Your task to perform on an android device: Play some music on YouTube Image 0: 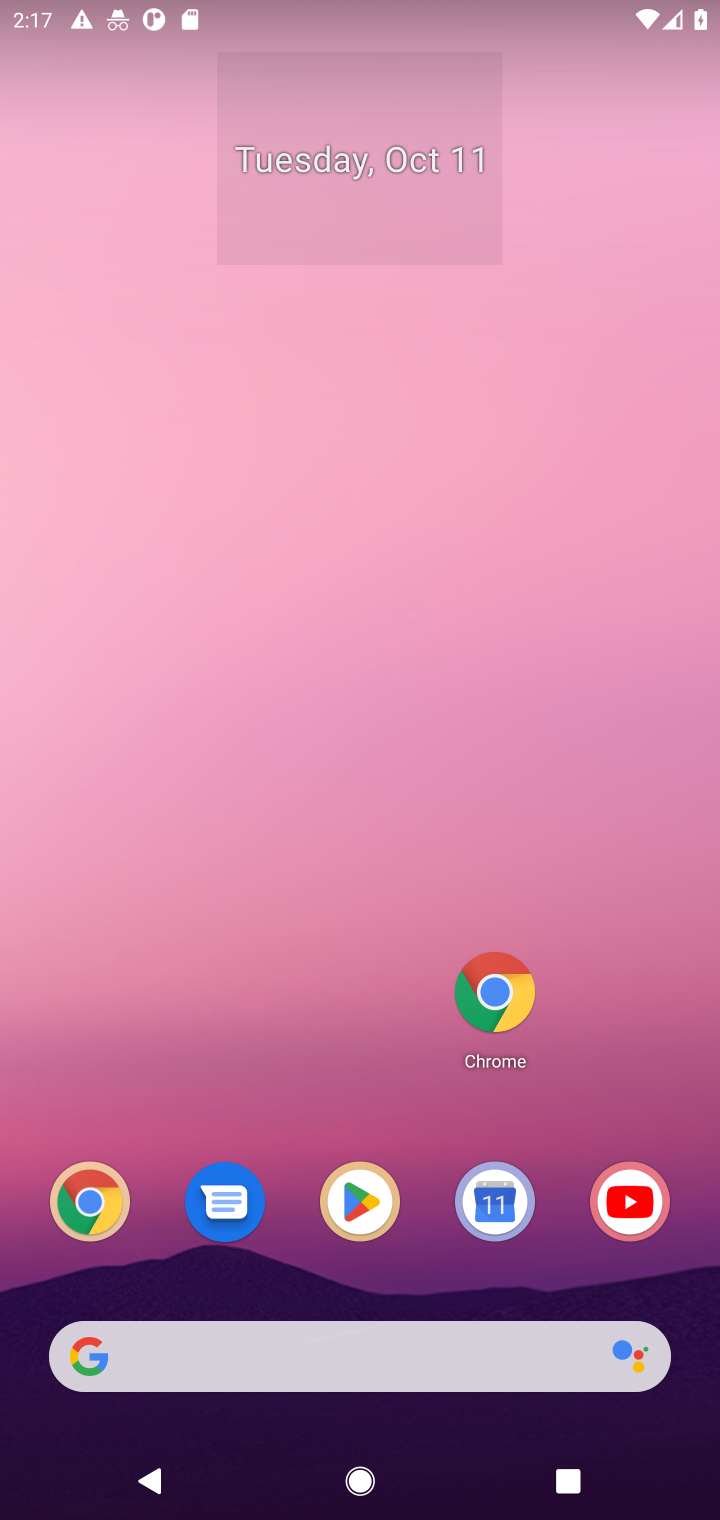
Step 0: click (644, 1198)
Your task to perform on an android device: Play some music on YouTube Image 1: 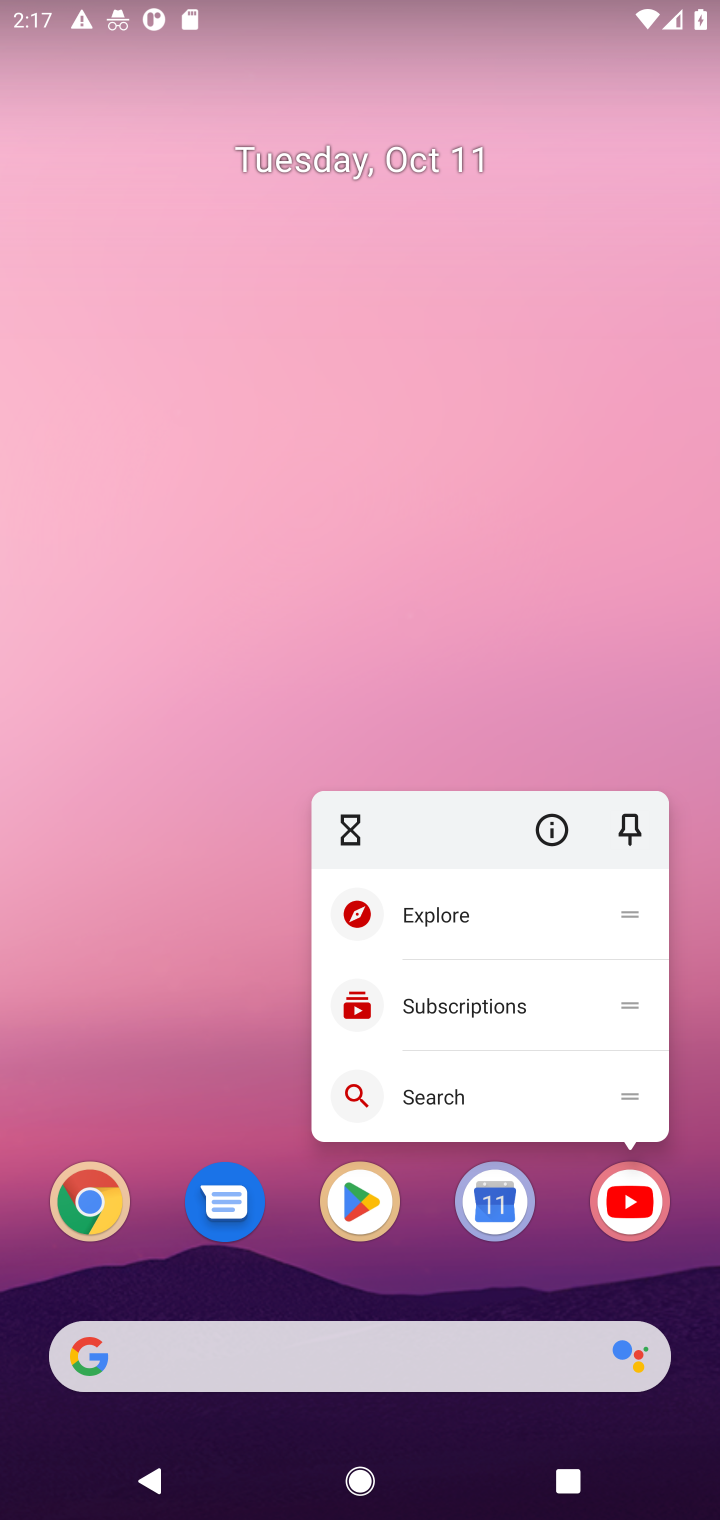
Step 1: click (644, 1202)
Your task to perform on an android device: Play some music on YouTube Image 2: 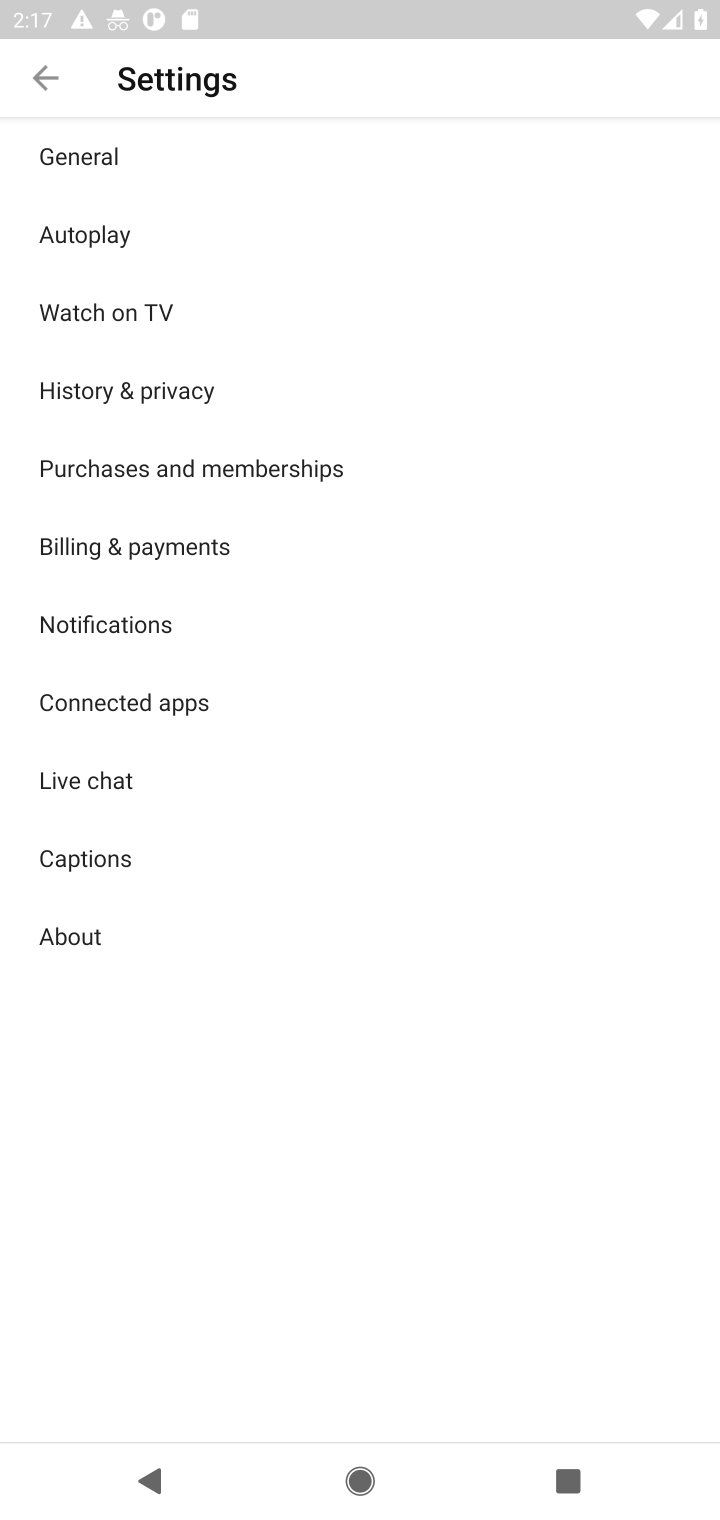
Step 2: press back button
Your task to perform on an android device: Play some music on YouTube Image 3: 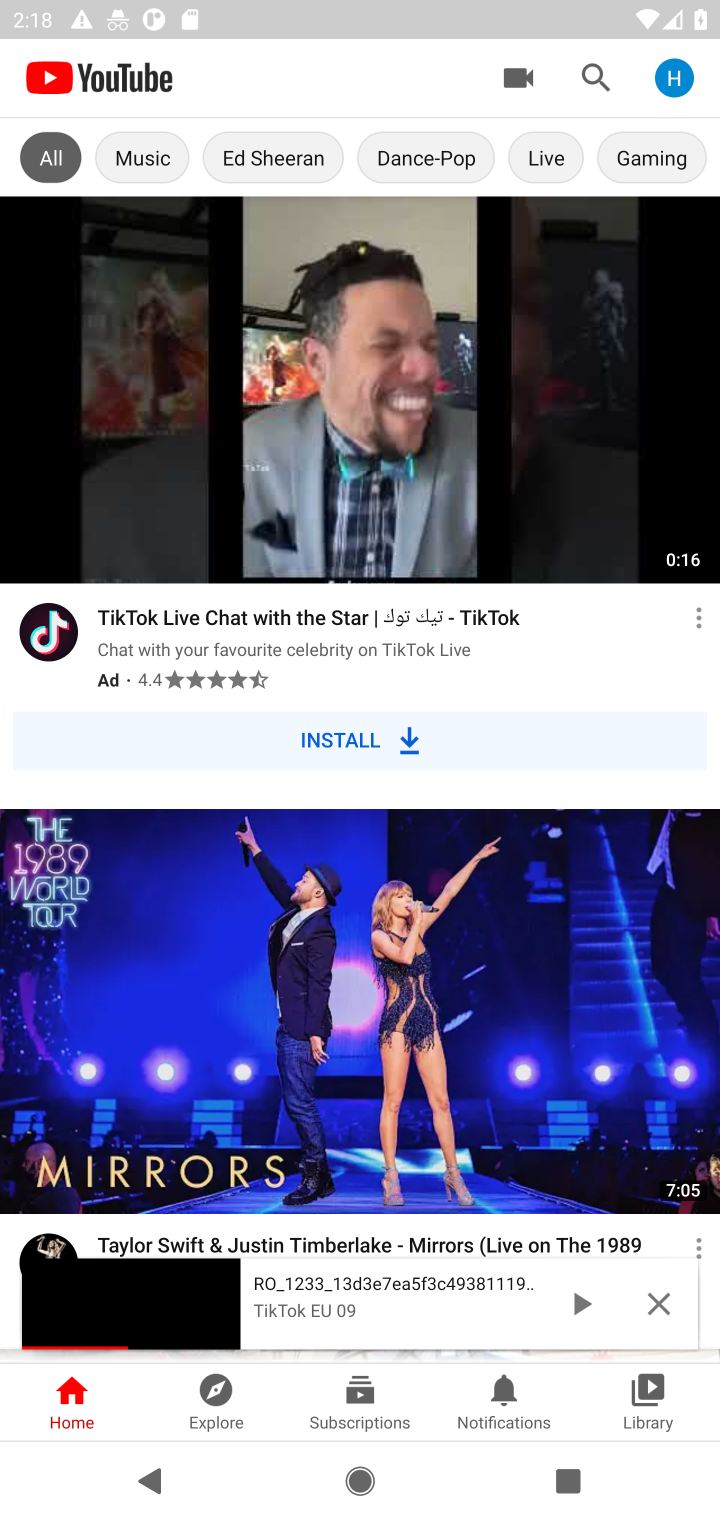
Step 3: click (573, 60)
Your task to perform on an android device: Play some music on YouTube Image 4: 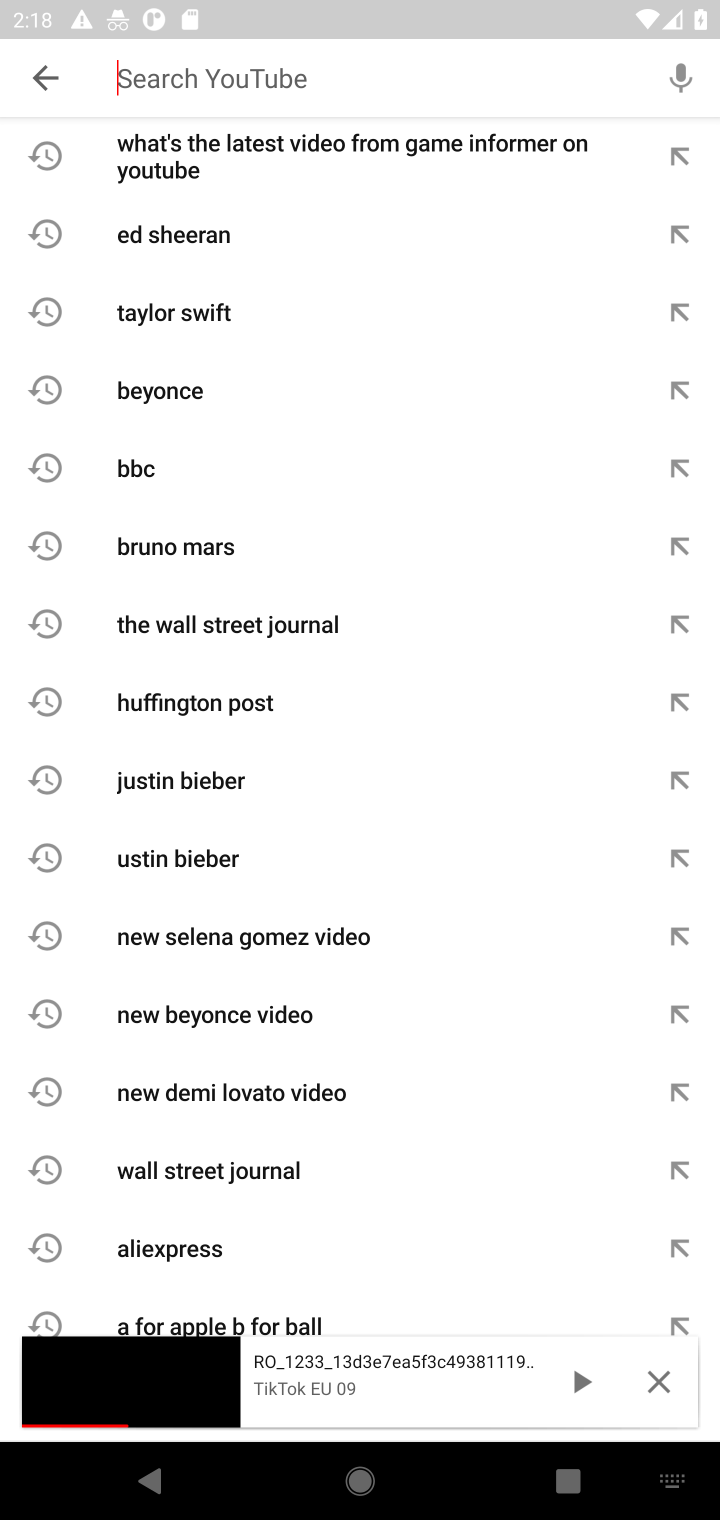
Step 4: click (658, 1370)
Your task to perform on an android device: Play some music on YouTube Image 5: 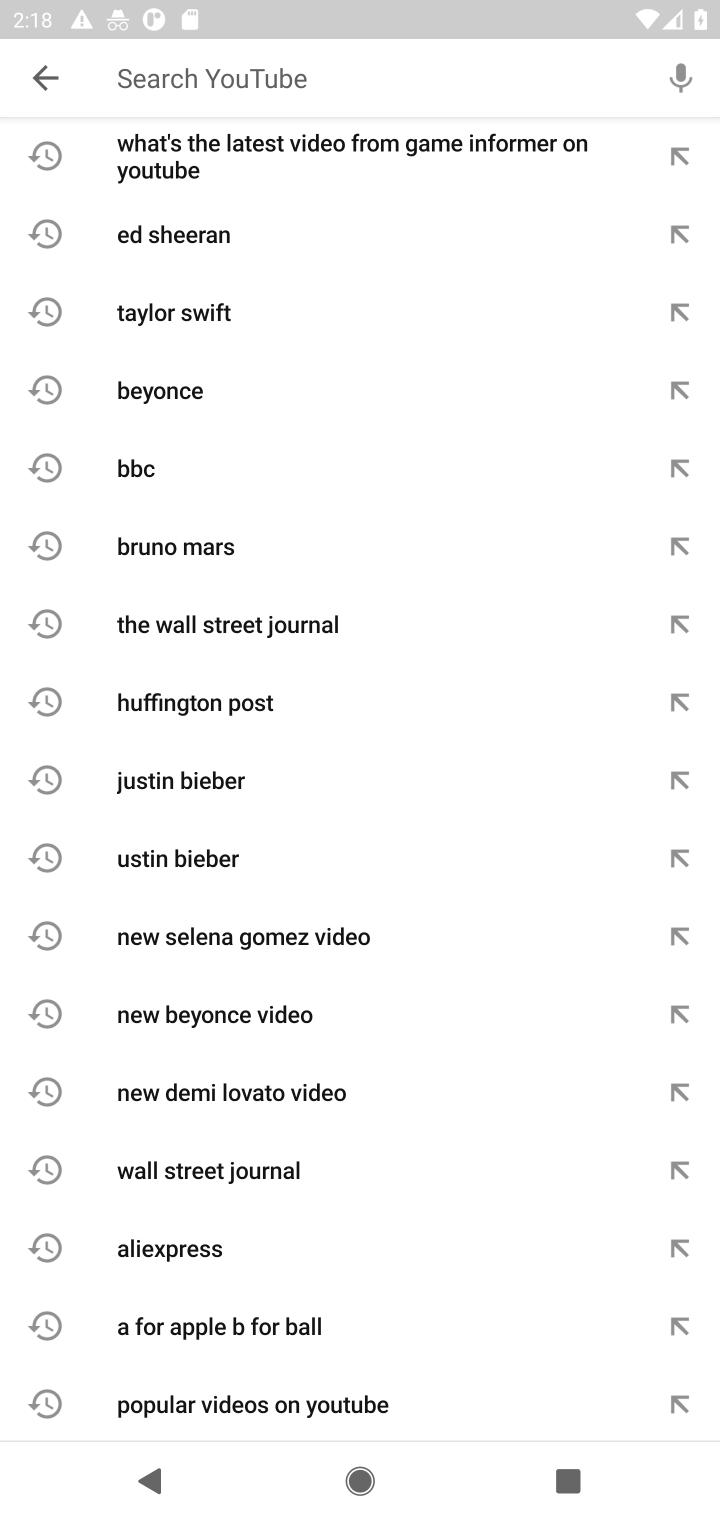
Step 5: type "some music"
Your task to perform on an android device: Play some music on YouTube Image 6: 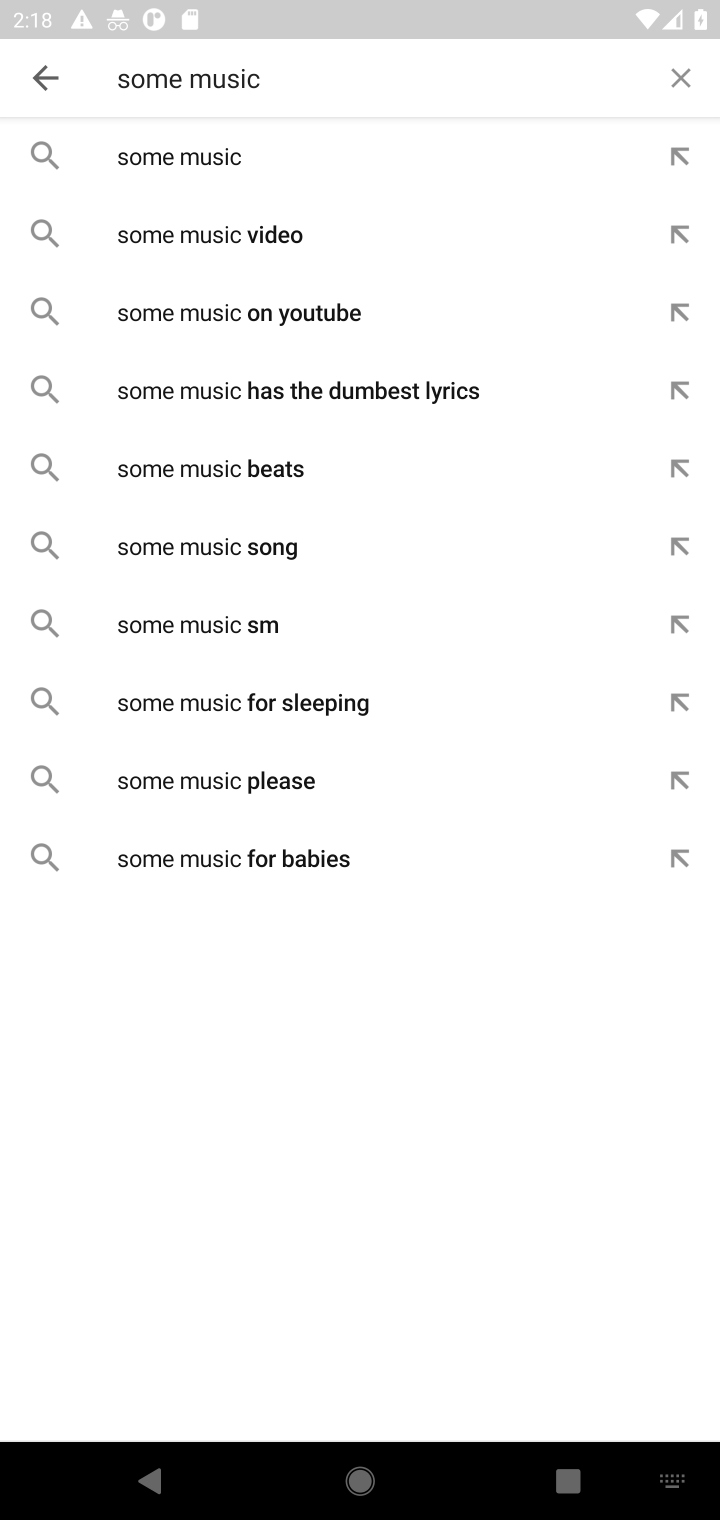
Step 6: press enter
Your task to perform on an android device: Play some music on YouTube Image 7: 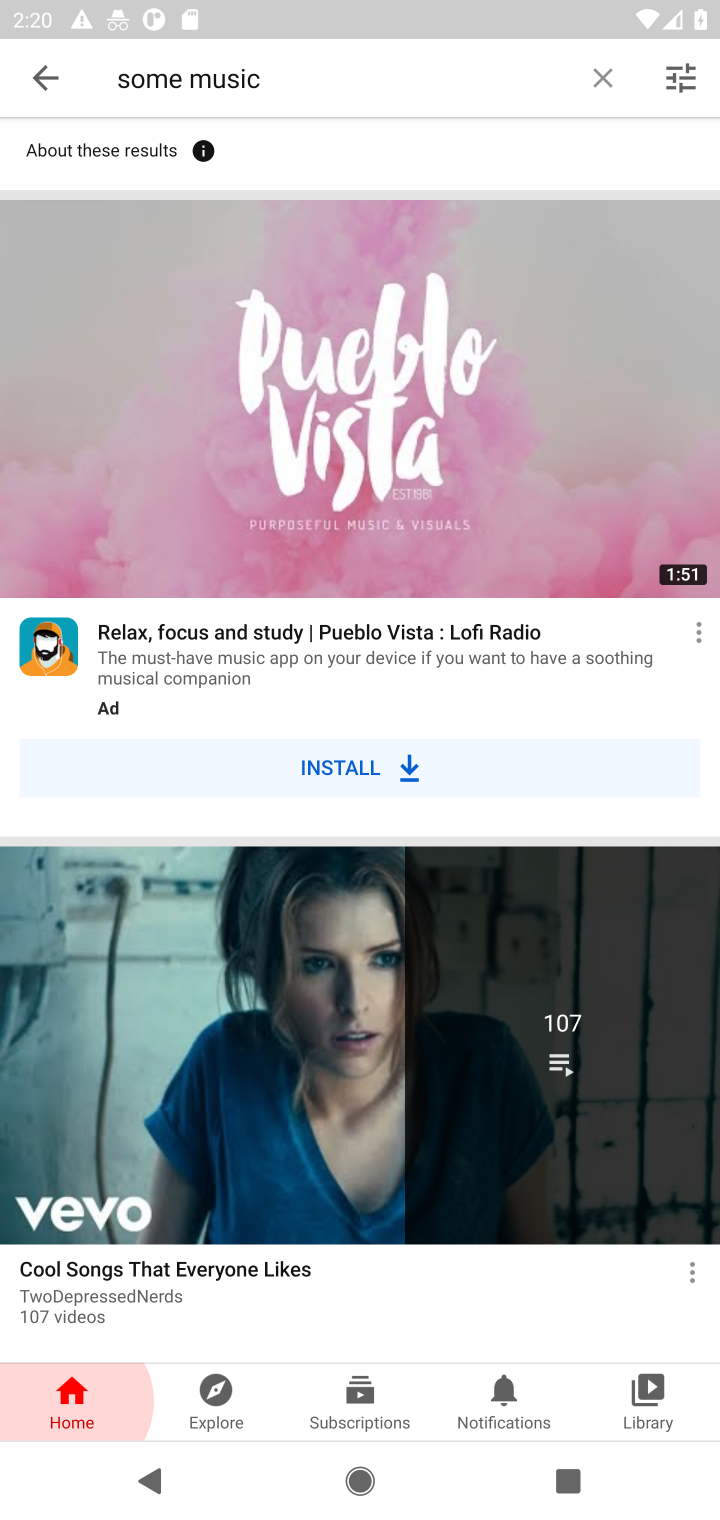
Step 7: click (298, 403)
Your task to perform on an android device: Play some music on YouTube Image 8: 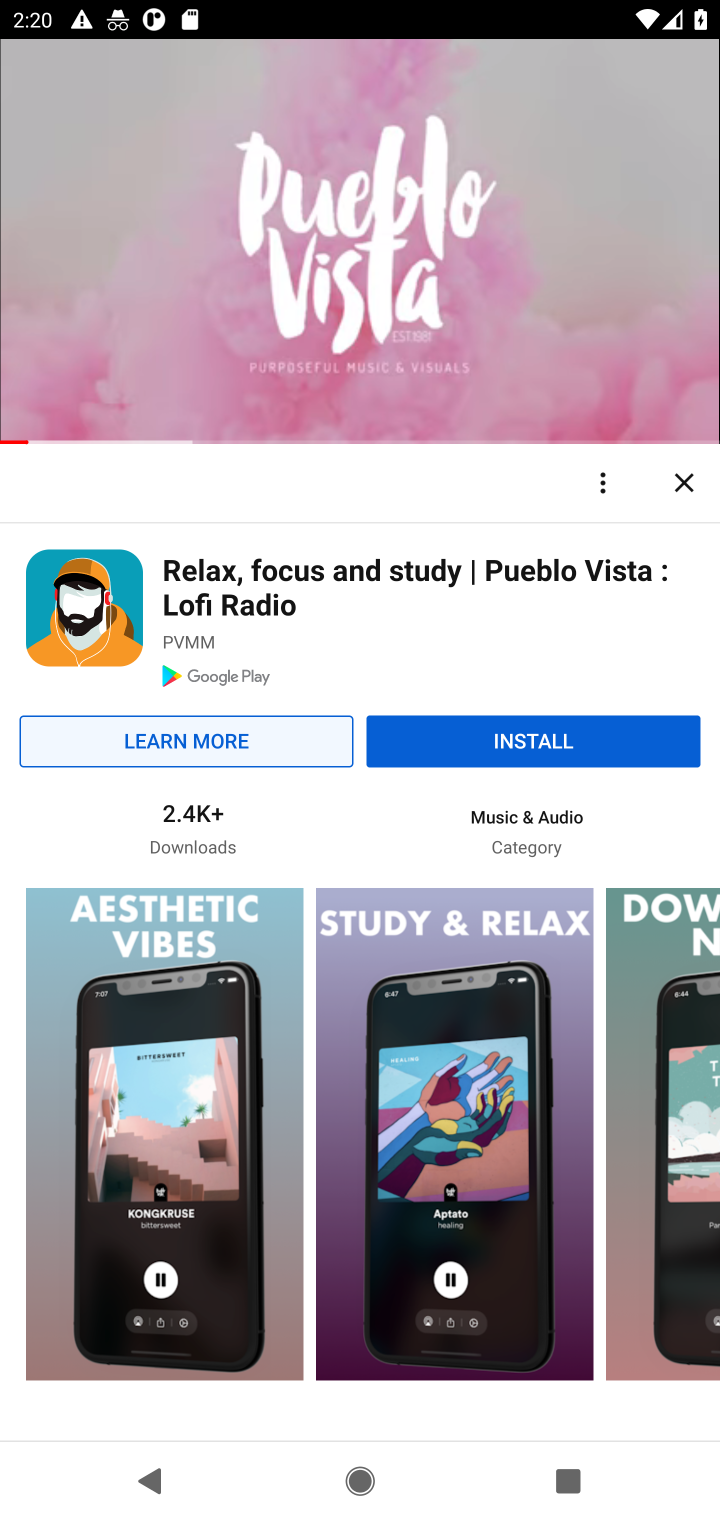
Step 8: click (376, 253)
Your task to perform on an android device: Play some music on YouTube Image 9: 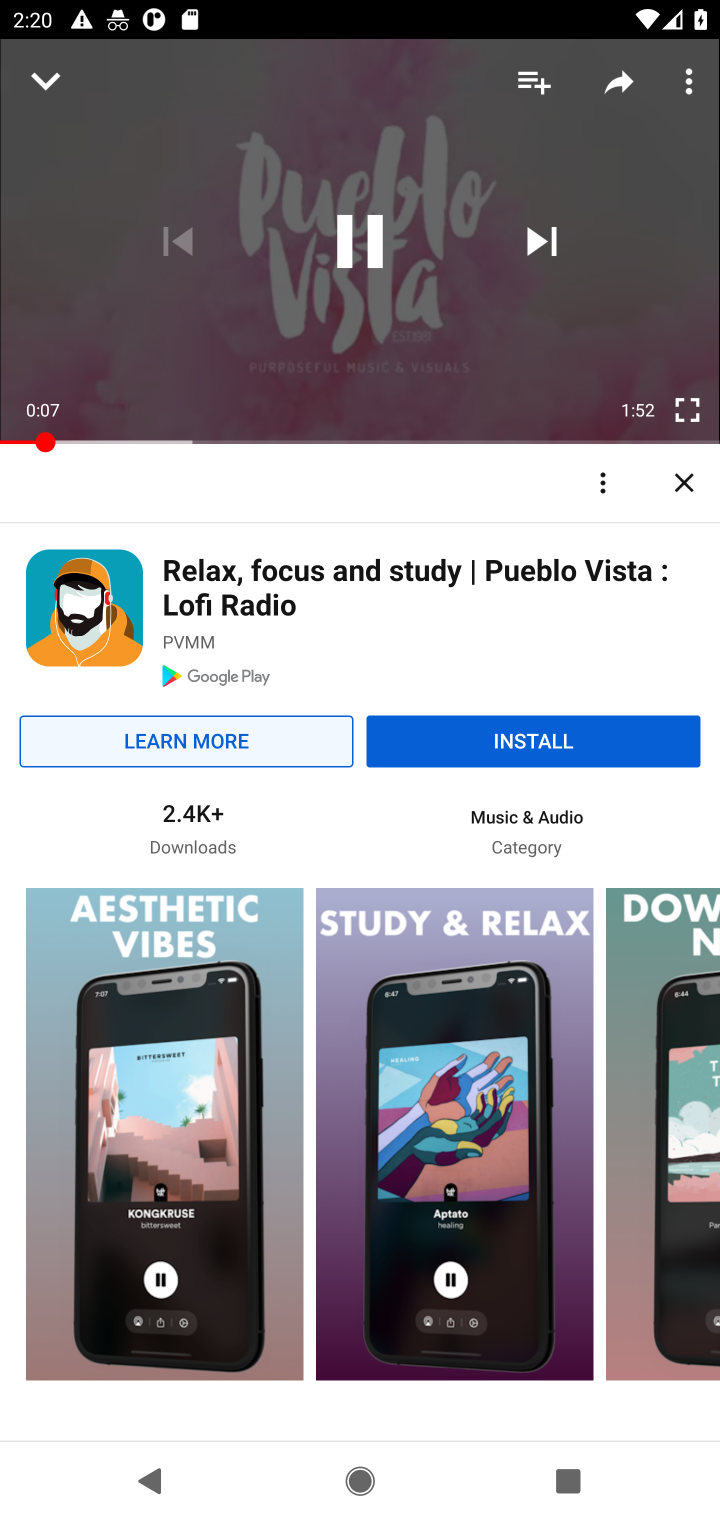
Step 9: click (355, 257)
Your task to perform on an android device: Play some music on YouTube Image 10: 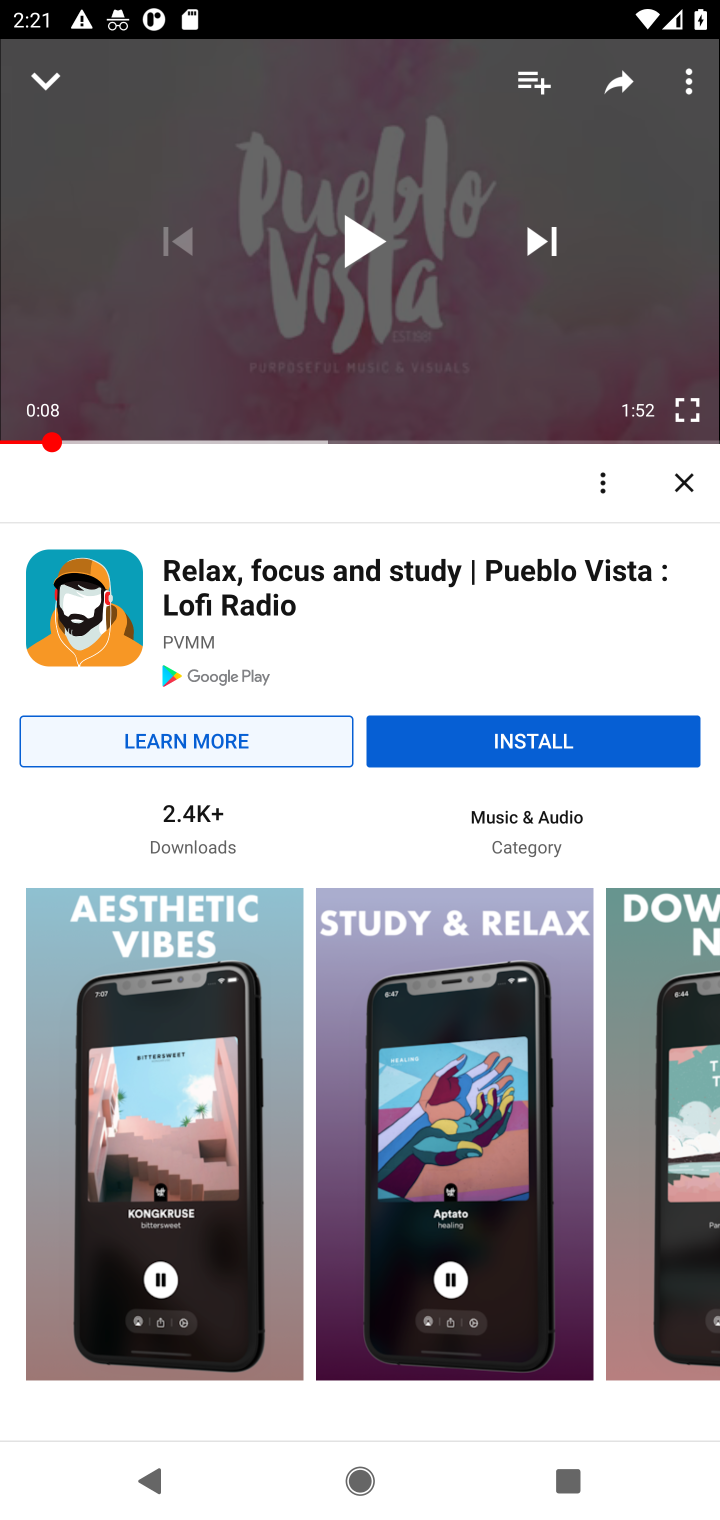
Step 10: task complete